Your task to perform on an android device: turn on wifi Image 0: 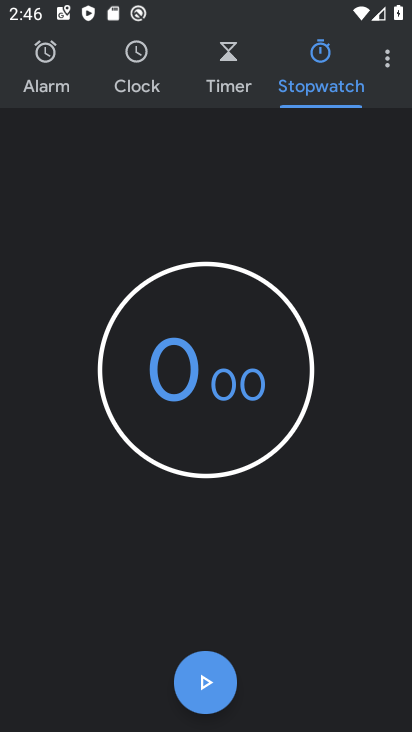
Step 0: press back button
Your task to perform on an android device: turn on wifi Image 1: 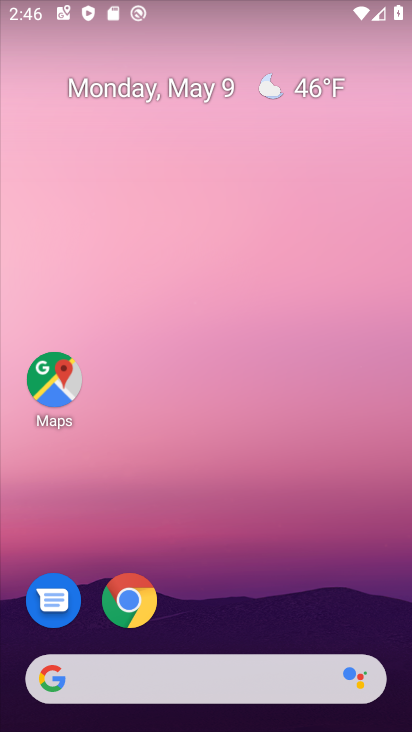
Step 1: task complete